Your task to perform on an android device: open app "Flipkart Online Shopping App" (install if not already installed) Image 0: 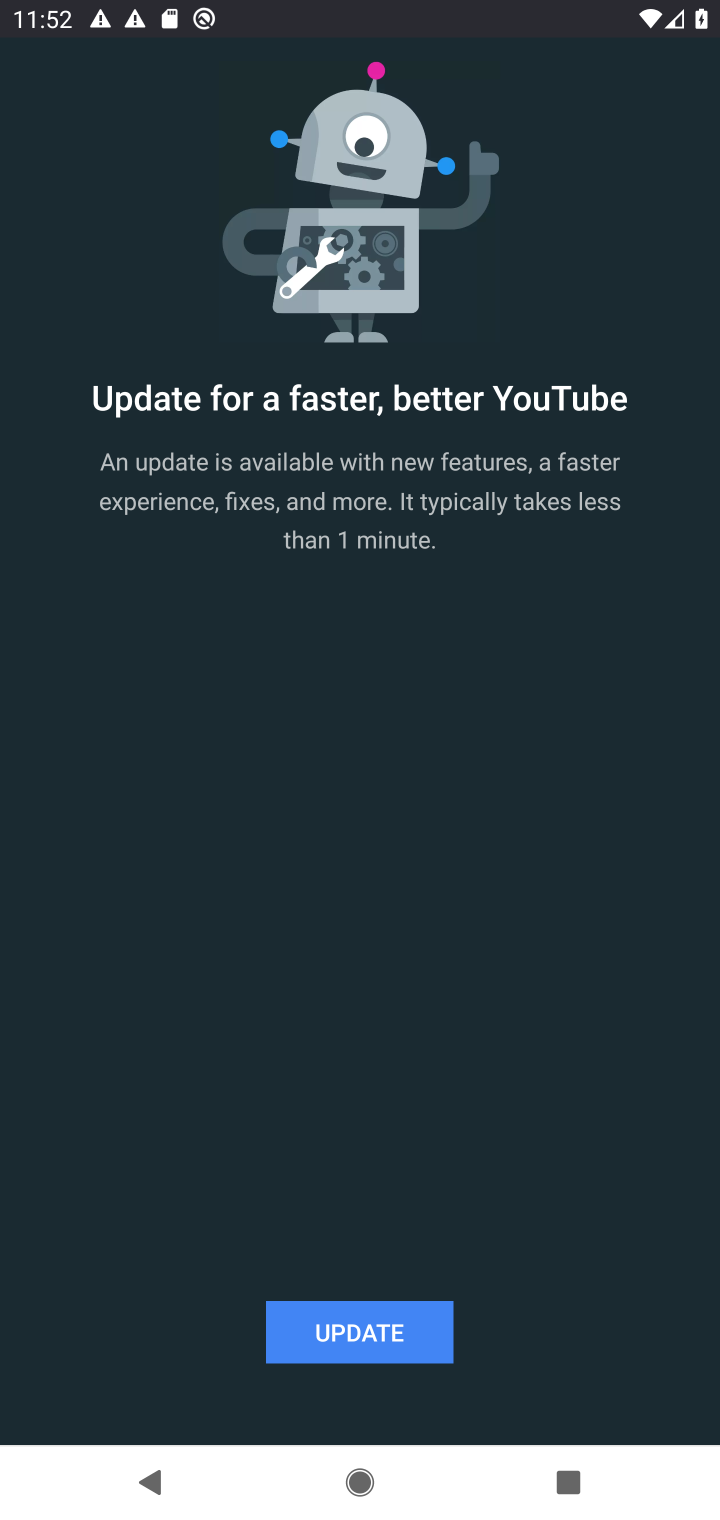
Step 0: press back button
Your task to perform on an android device: open app "Flipkart Online Shopping App" (install if not already installed) Image 1: 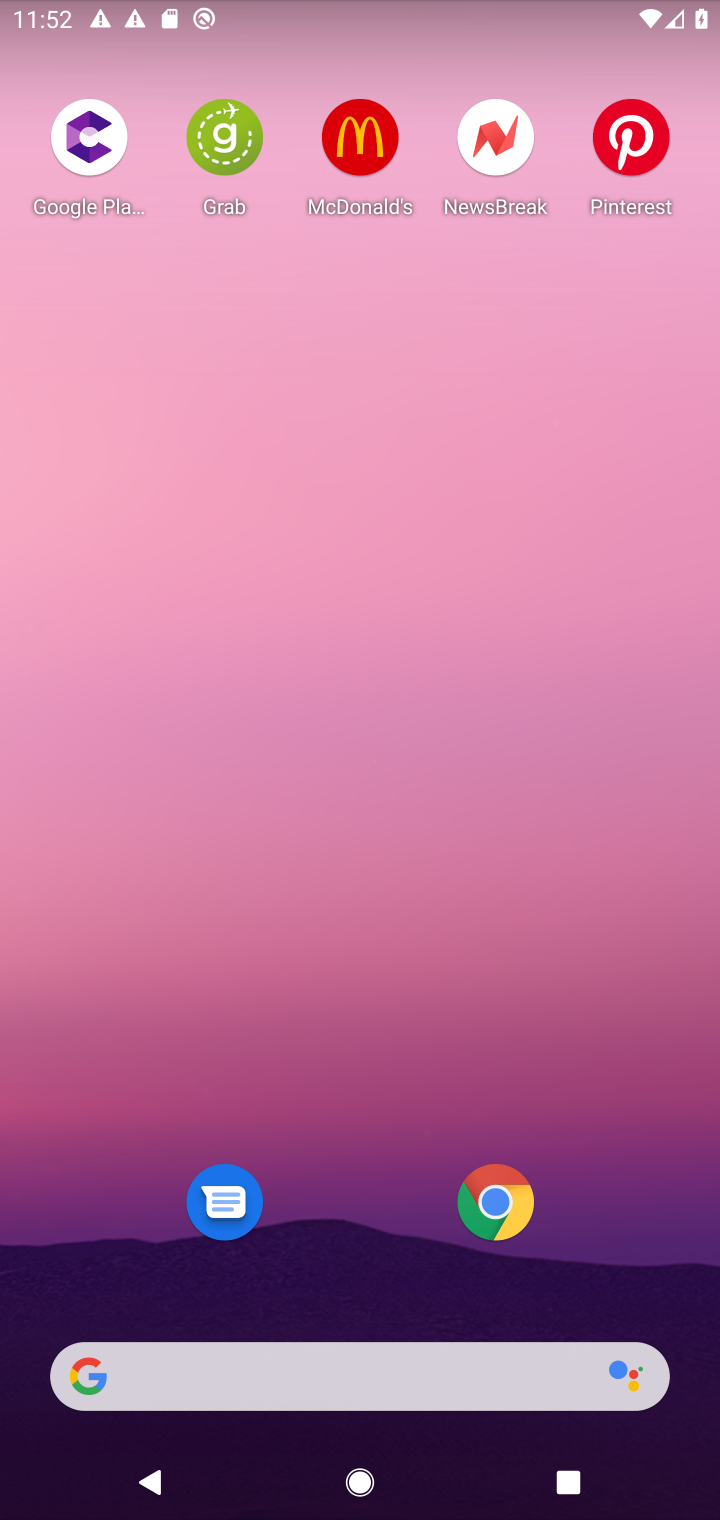
Step 1: press back button
Your task to perform on an android device: open app "Flipkart Online Shopping App" (install if not already installed) Image 2: 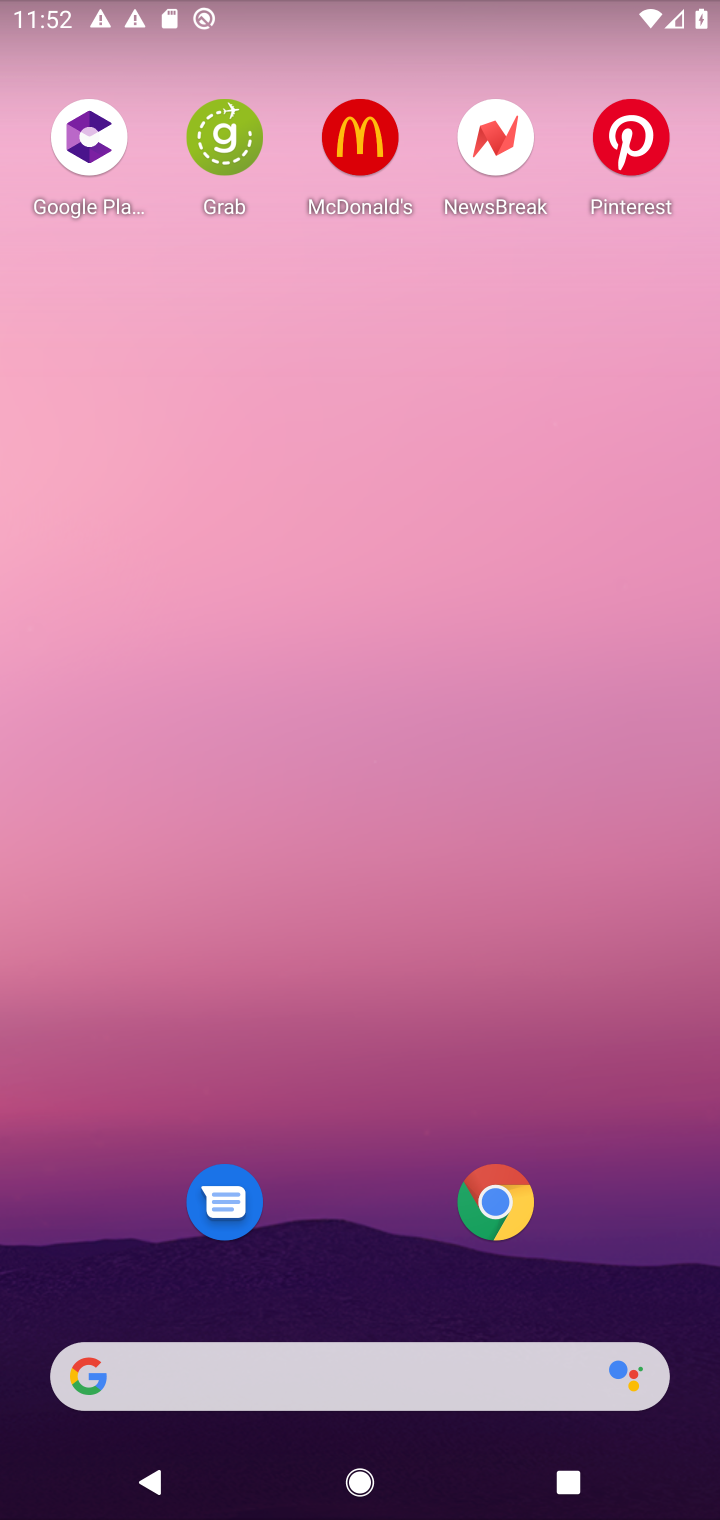
Step 2: drag from (427, 1306) to (381, 128)
Your task to perform on an android device: open app "Flipkart Online Shopping App" (install if not already installed) Image 3: 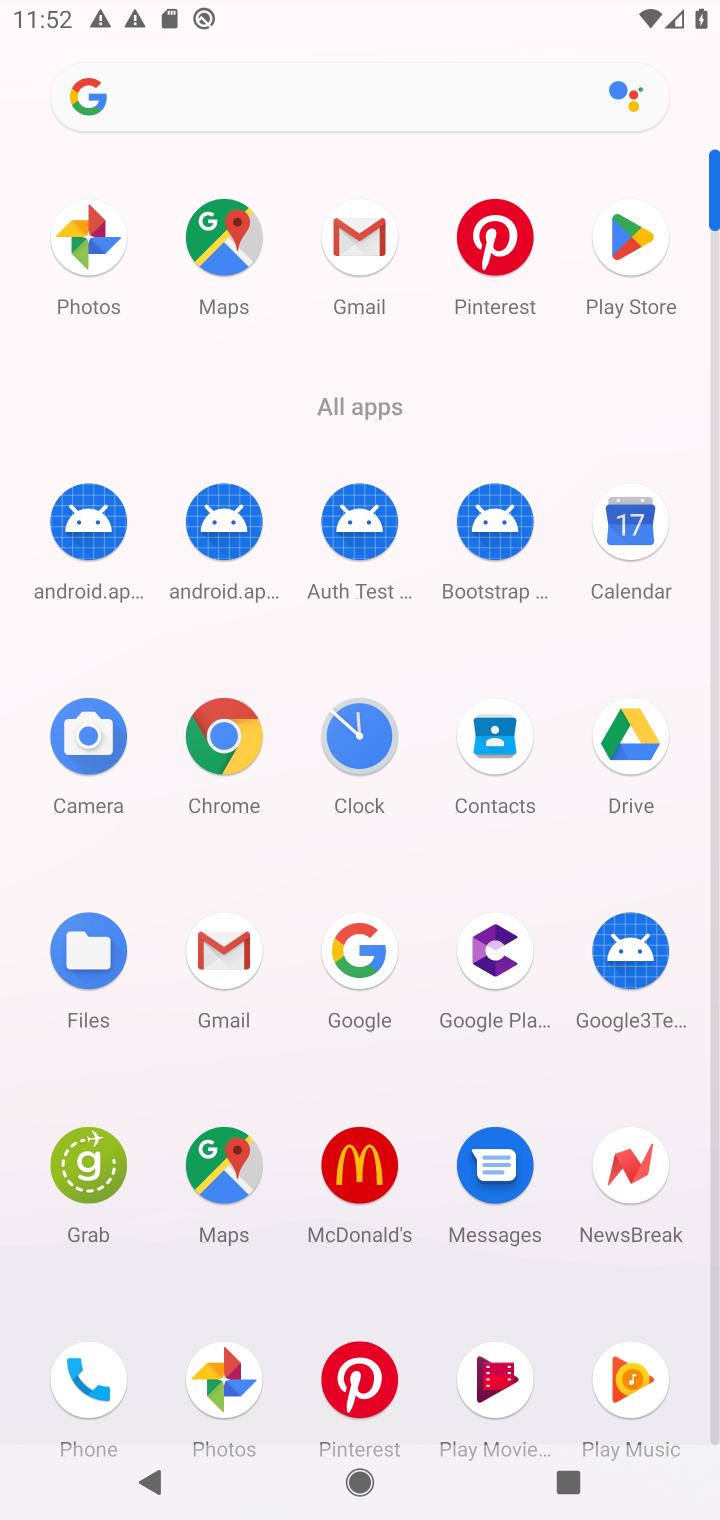
Step 3: click (655, 262)
Your task to perform on an android device: open app "Flipkart Online Shopping App" (install if not already installed) Image 4: 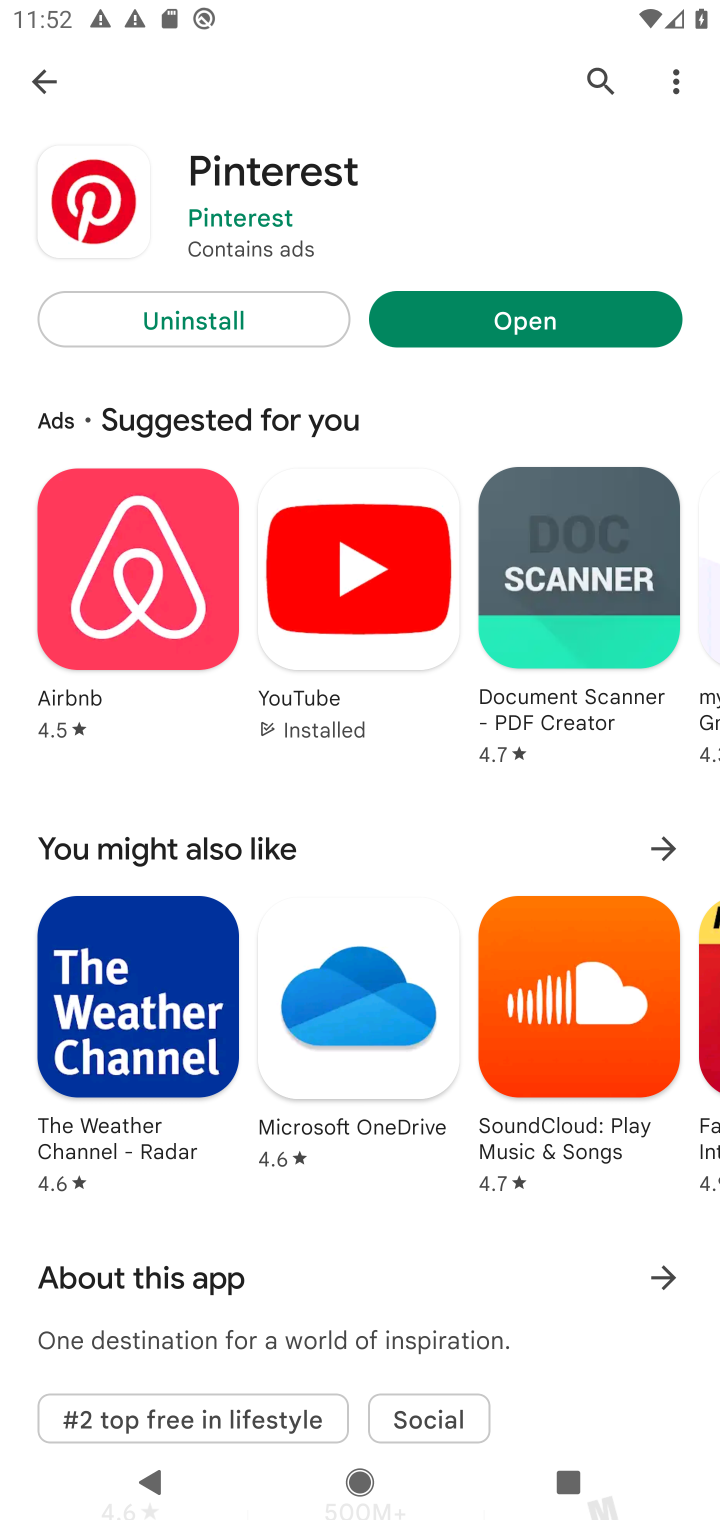
Step 4: click (39, 62)
Your task to perform on an android device: open app "Flipkart Online Shopping App" (install if not already installed) Image 5: 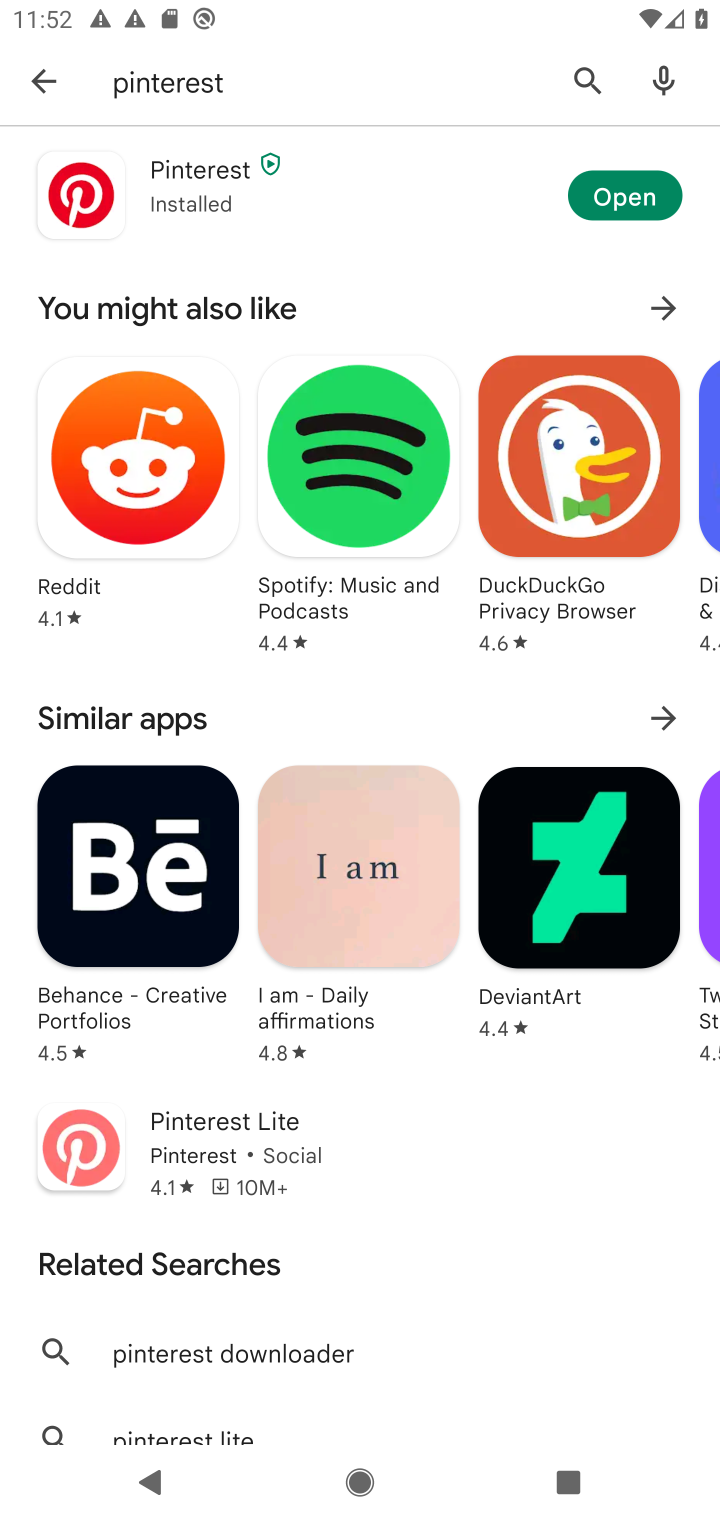
Step 5: click (40, 89)
Your task to perform on an android device: open app "Flipkart Online Shopping App" (install if not already installed) Image 6: 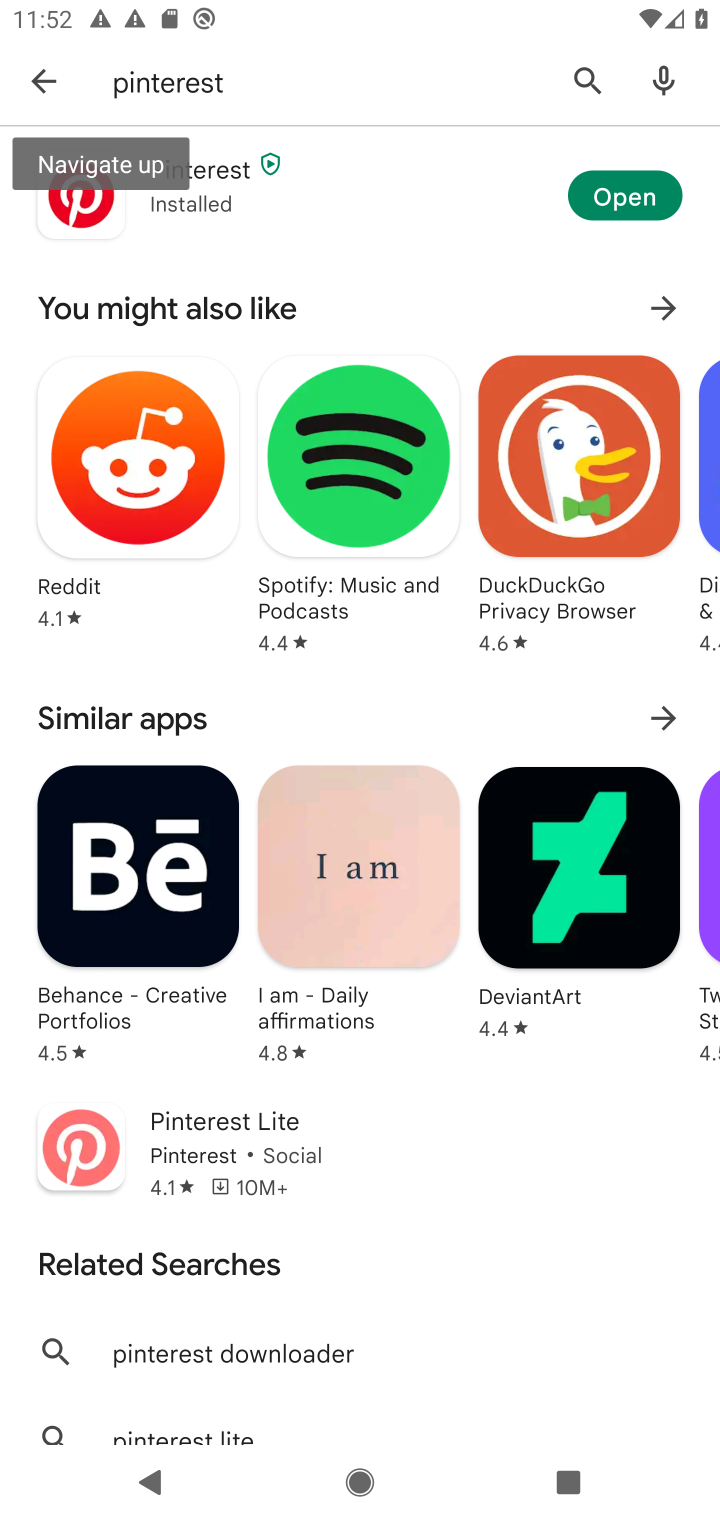
Step 6: click (40, 89)
Your task to perform on an android device: open app "Flipkart Online Shopping App" (install if not already installed) Image 7: 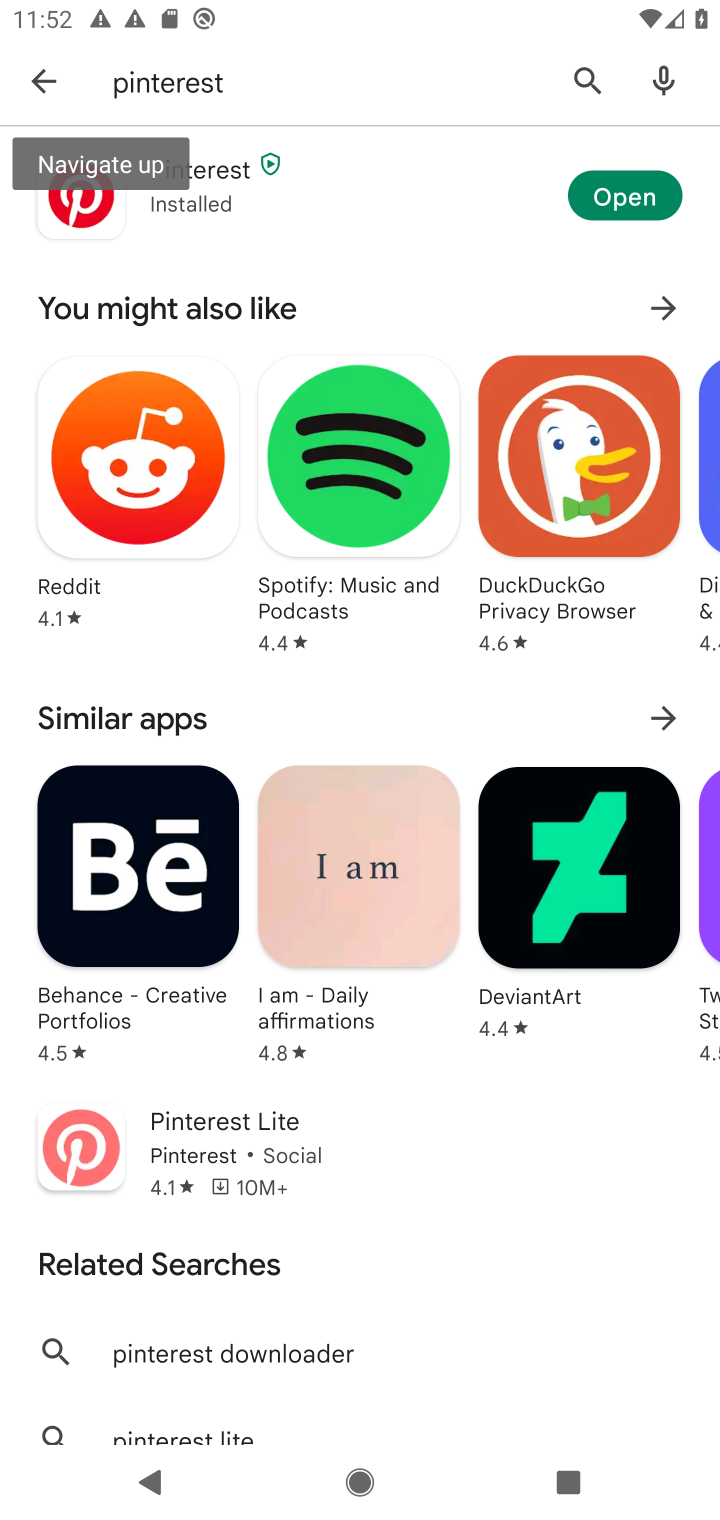
Step 7: click (40, 89)
Your task to perform on an android device: open app "Flipkart Online Shopping App" (install if not already installed) Image 8: 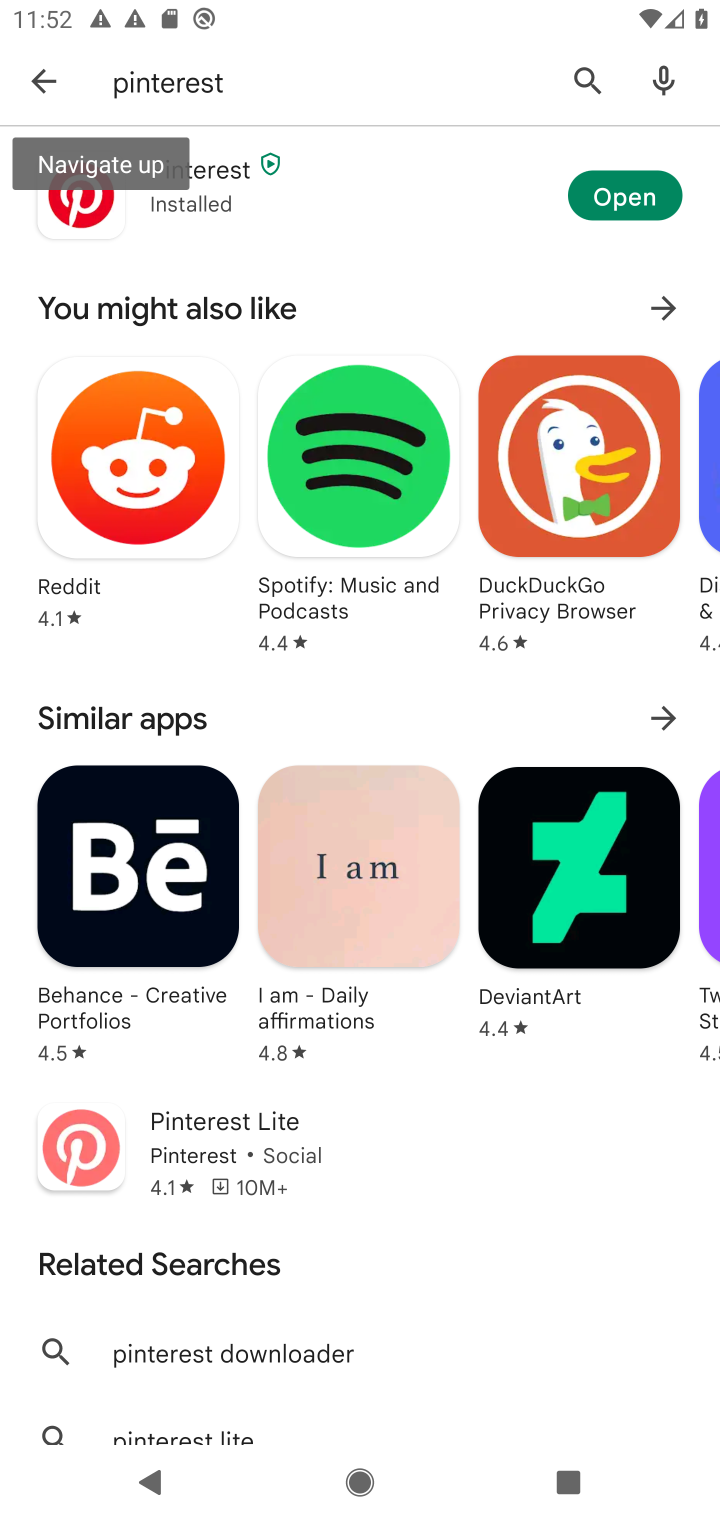
Step 8: click (37, 88)
Your task to perform on an android device: open app "Flipkart Online Shopping App" (install if not already installed) Image 9: 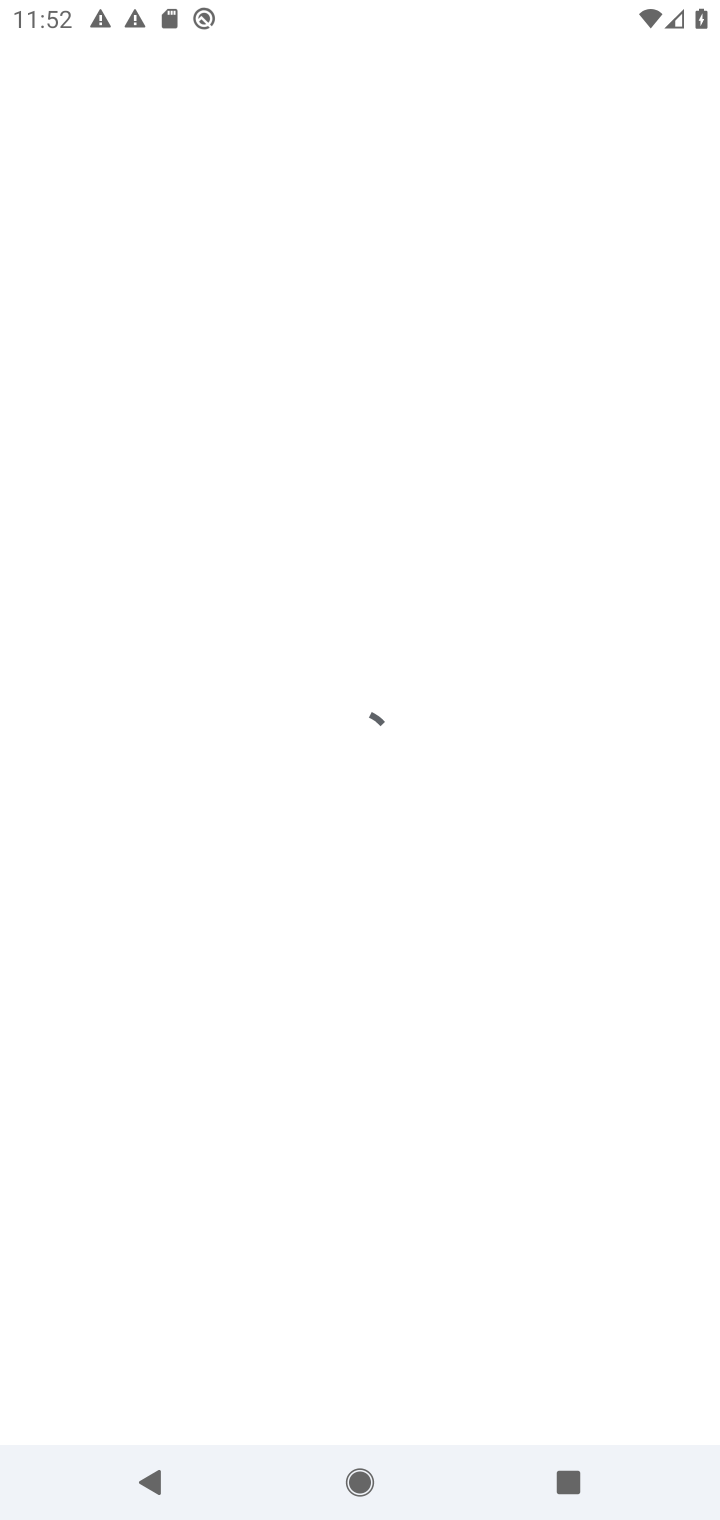
Step 9: press back button
Your task to perform on an android device: open app "Flipkart Online Shopping App" (install if not already installed) Image 10: 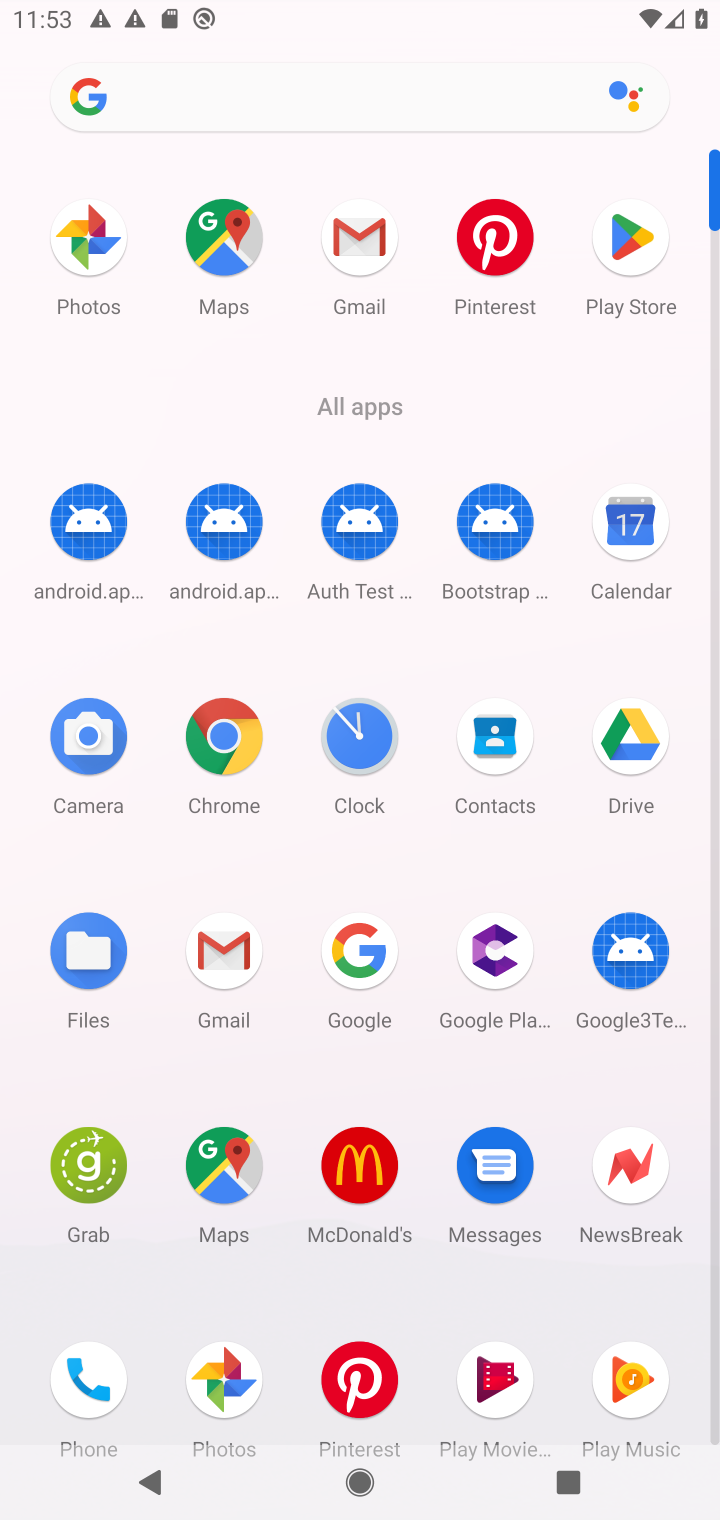
Step 10: click (620, 258)
Your task to perform on an android device: open app "Flipkart Online Shopping App" (install if not already installed) Image 11: 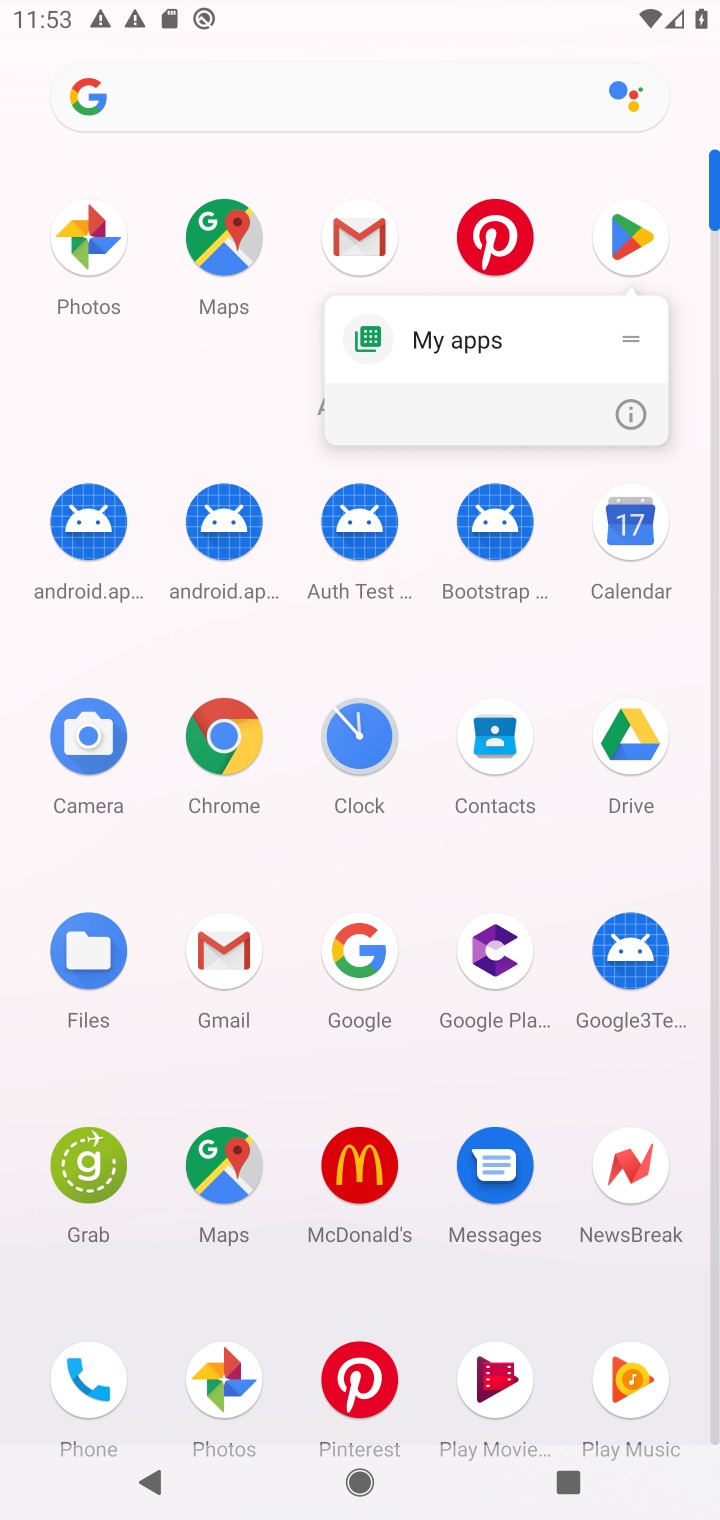
Step 11: click (633, 226)
Your task to perform on an android device: open app "Flipkart Online Shopping App" (install if not already installed) Image 12: 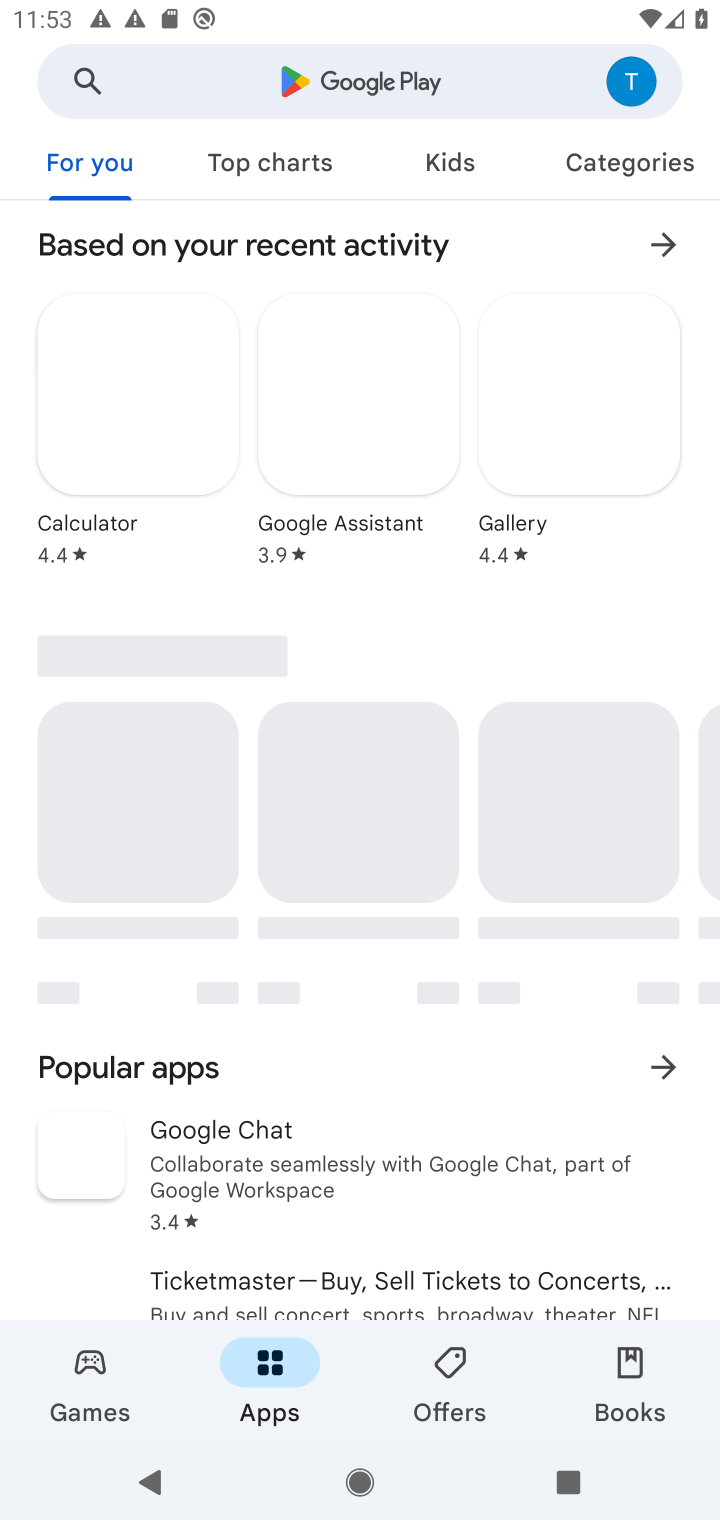
Step 12: click (311, 72)
Your task to perform on an android device: open app "Flipkart Online Shopping App" (install if not already installed) Image 13: 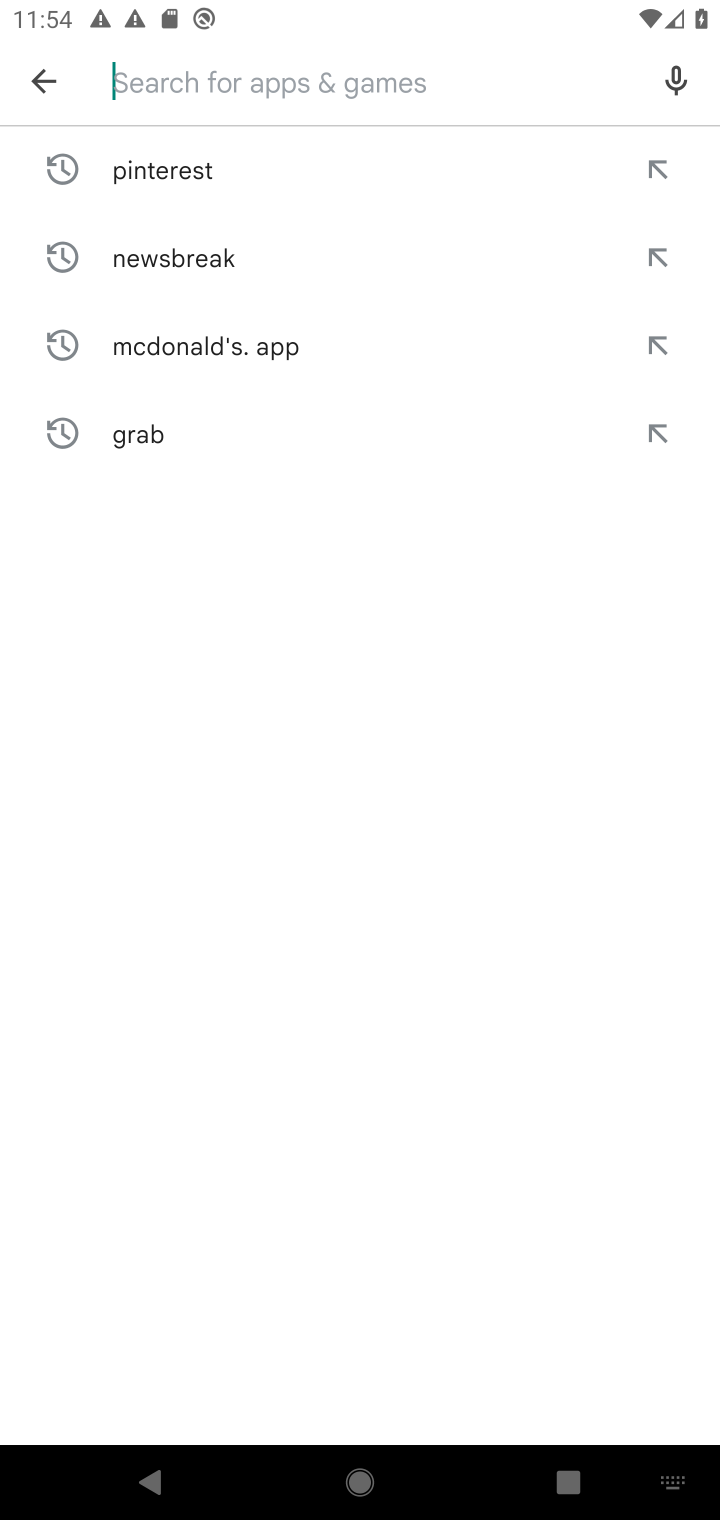
Step 13: type "Flipkart Online Shopping App"
Your task to perform on an android device: open app "Flipkart Online Shopping App" (install if not already installed) Image 14: 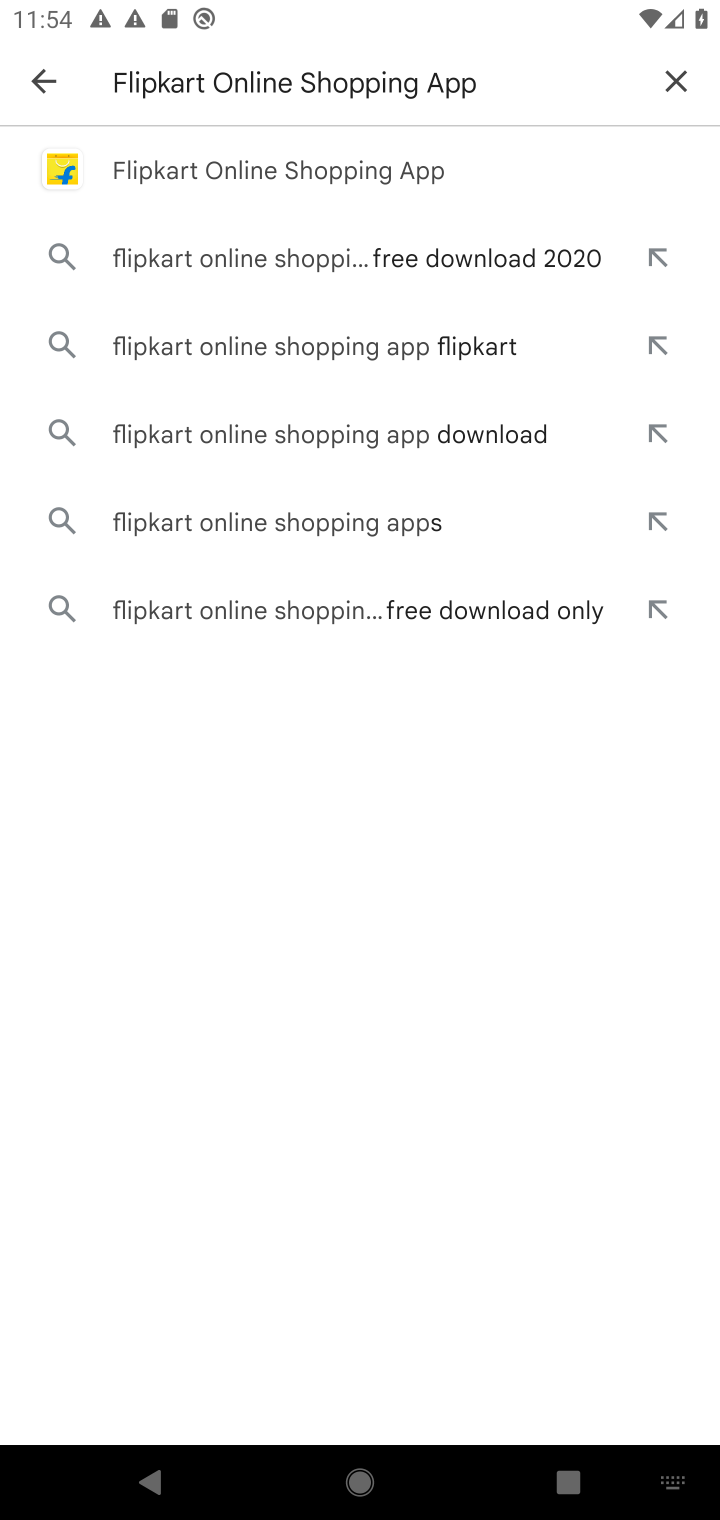
Step 14: click (180, 191)
Your task to perform on an android device: open app "Flipkart Online Shopping App" (install if not already installed) Image 15: 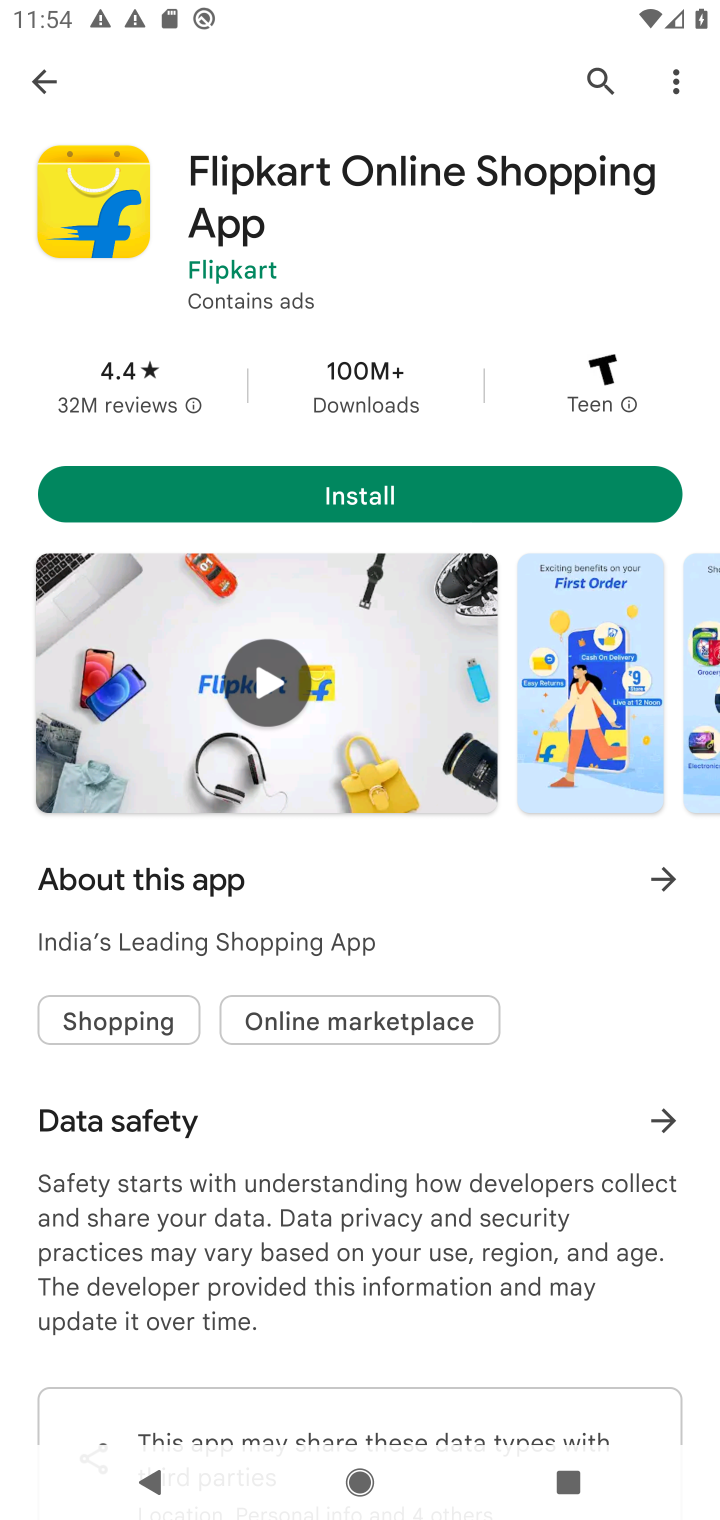
Step 15: click (163, 532)
Your task to perform on an android device: open app "Flipkart Online Shopping App" (install if not already installed) Image 16: 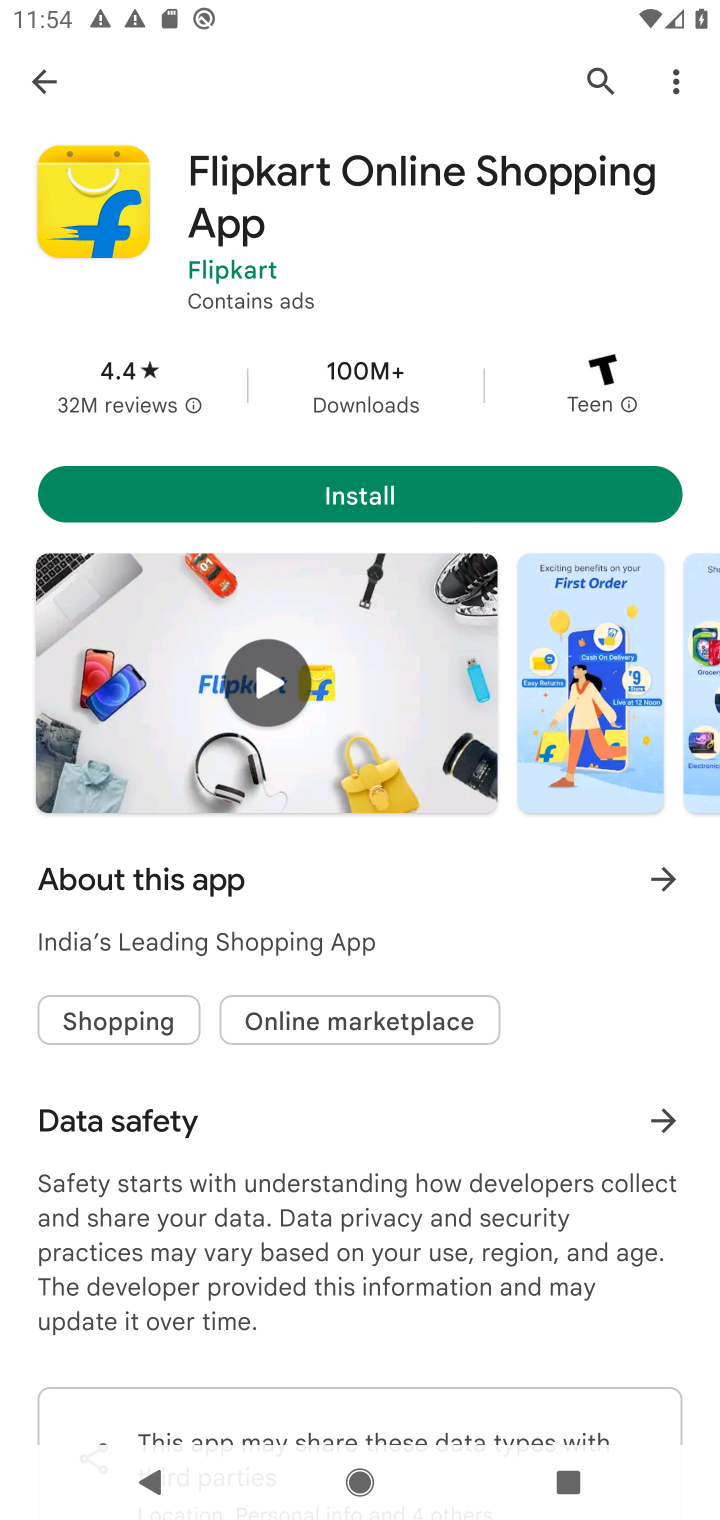
Step 16: click (195, 504)
Your task to perform on an android device: open app "Flipkart Online Shopping App" (install if not already installed) Image 17: 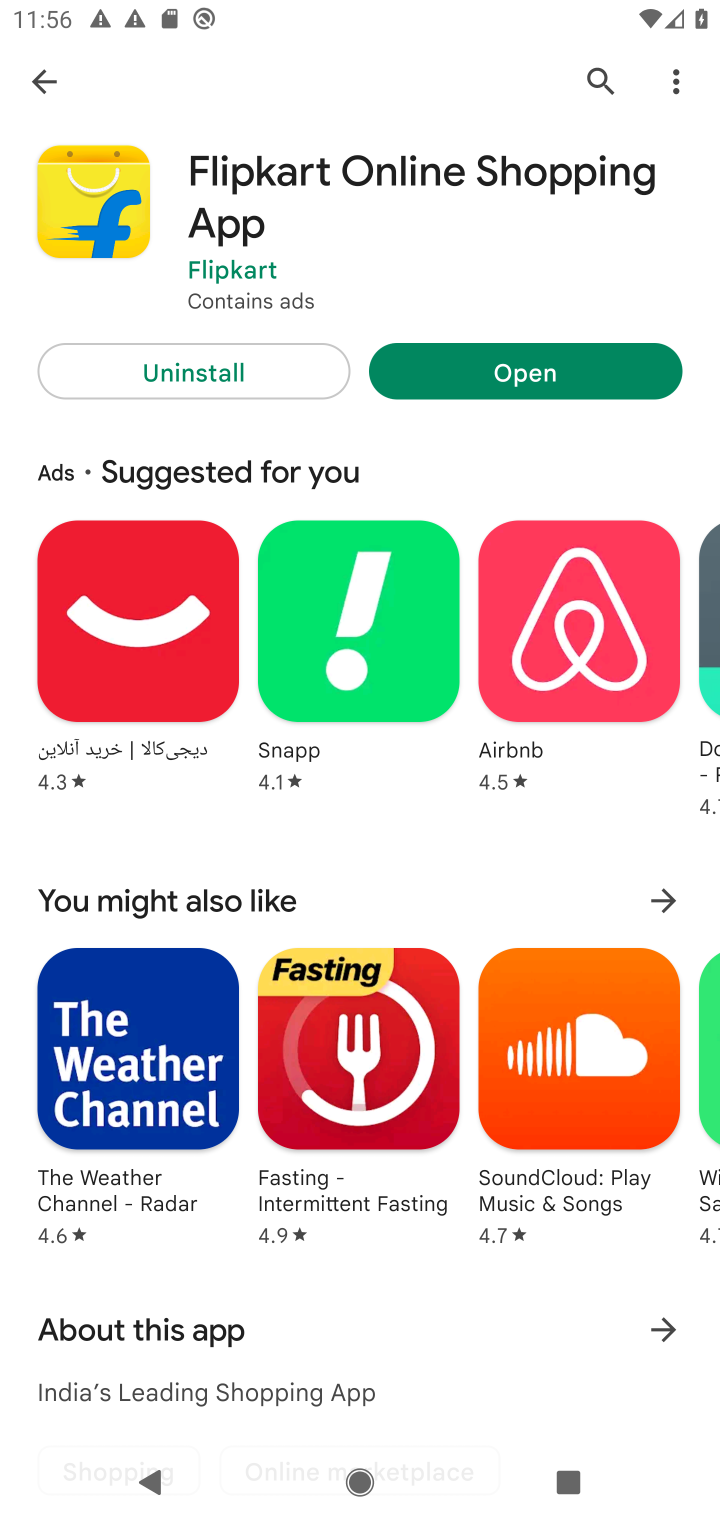
Step 17: click (613, 369)
Your task to perform on an android device: open app "Flipkart Online Shopping App" (install if not already installed) Image 18: 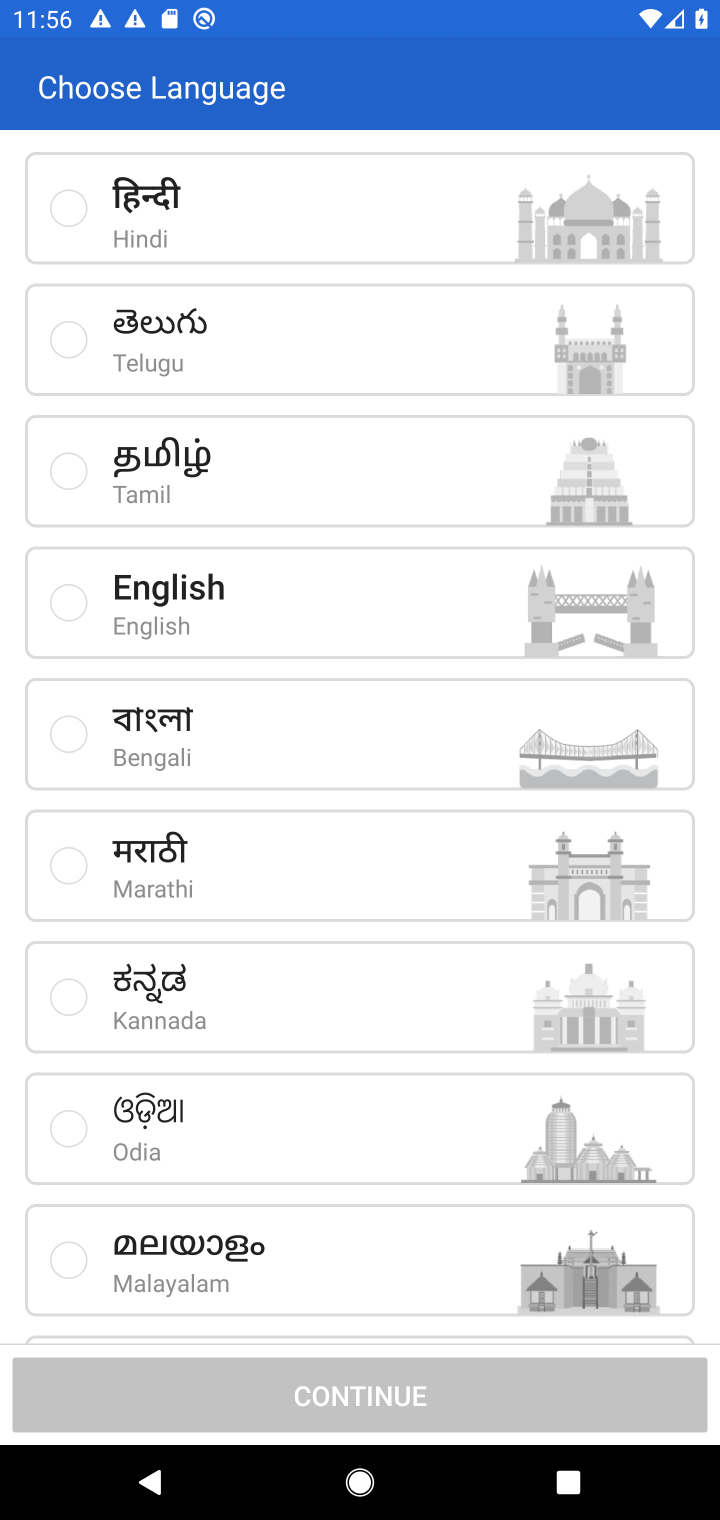
Step 18: task complete